Your task to perform on an android device: find which apps use the phone's location Image 0: 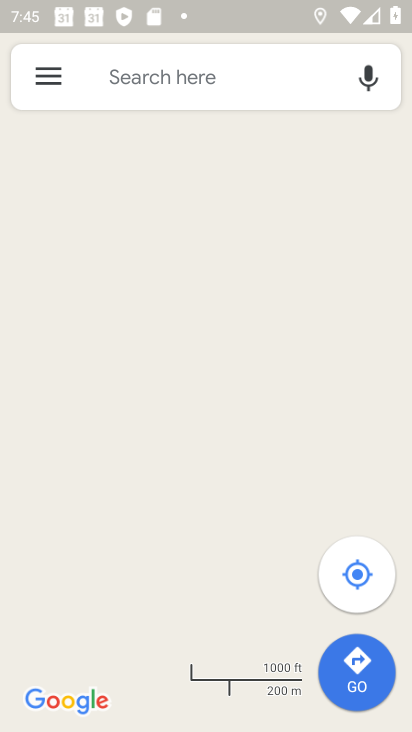
Step 0: press home button
Your task to perform on an android device: find which apps use the phone's location Image 1: 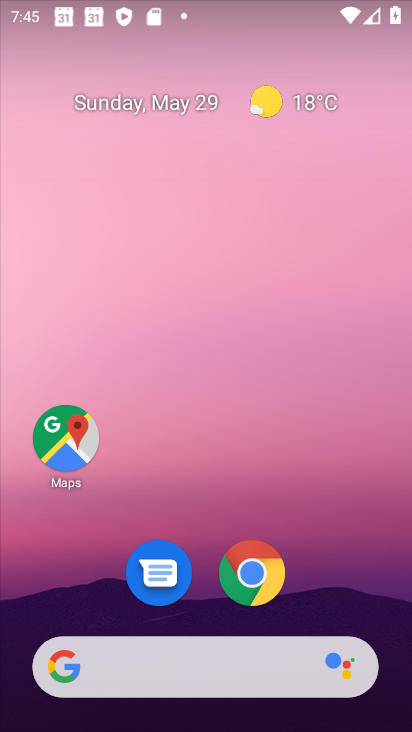
Step 1: drag from (87, 642) to (240, 167)
Your task to perform on an android device: find which apps use the phone's location Image 2: 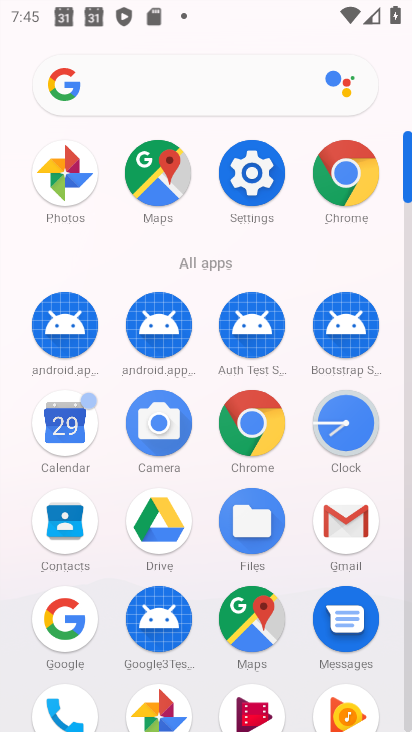
Step 2: drag from (166, 588) to (249, 303)
Your task to perform on an android device: find which apps use the phone's location Image 3: 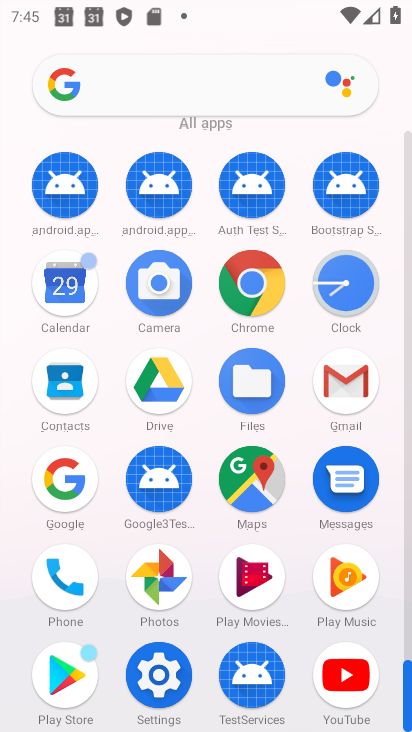
Step 3: click (163, 682)
Your task to perform on an android device: find which apps use the phone's location Image 4: 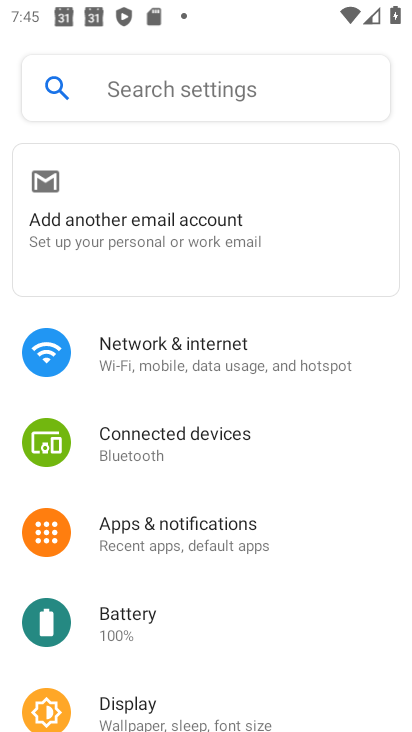
Step 4: drag from (161, 653) to (370, 247)
Your task to perform on an android device: find which apps use the phone's location Image 5: 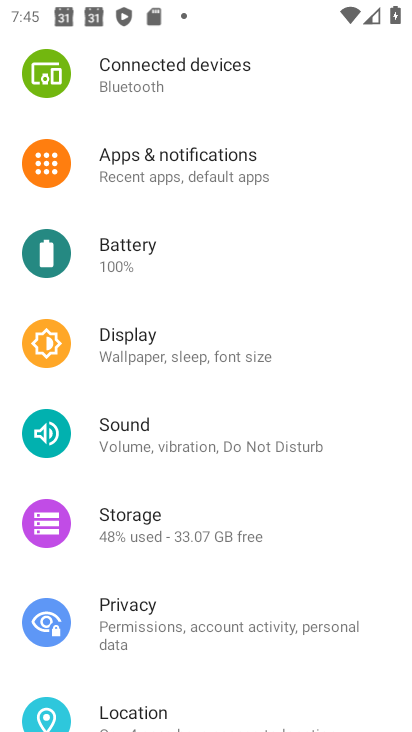
Step 5: drag from (168, 719) to (225, 446)
Your task to perform on an android device: find which apps use the phone's location Image 6: 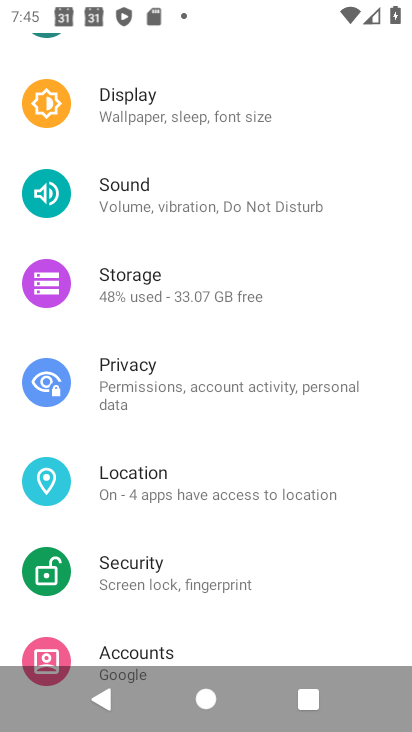
Step 6: click (153, 489)
Your task to perform on an android device: find which apps use the phone's location Image 7: 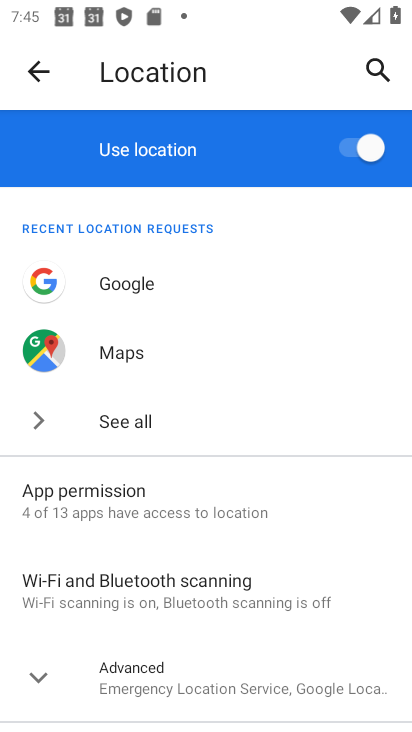
Step 7: click (175, 512)
Your task to perform on an android device: find which apps use the phone's location Image 8: 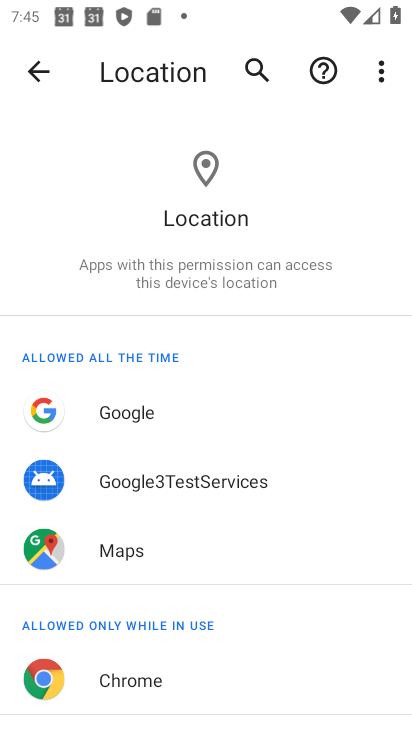
Step 8: task complete